Your task to perform on an android device: delete location history Image 0: 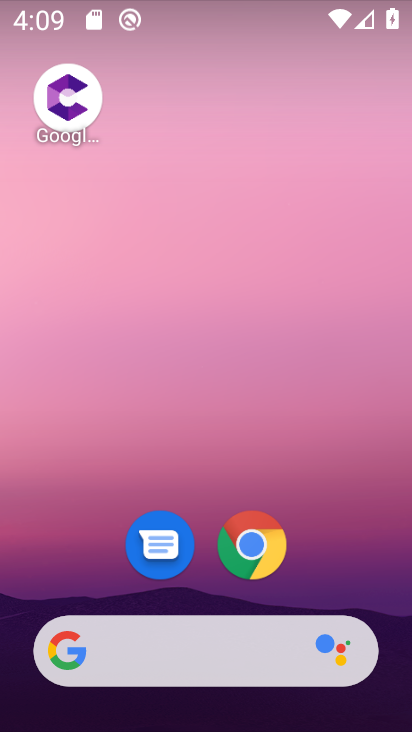
Step 0: drag from (369, 579) to (346, 201)
Your task to perform on an android device: delete location history Image 1: 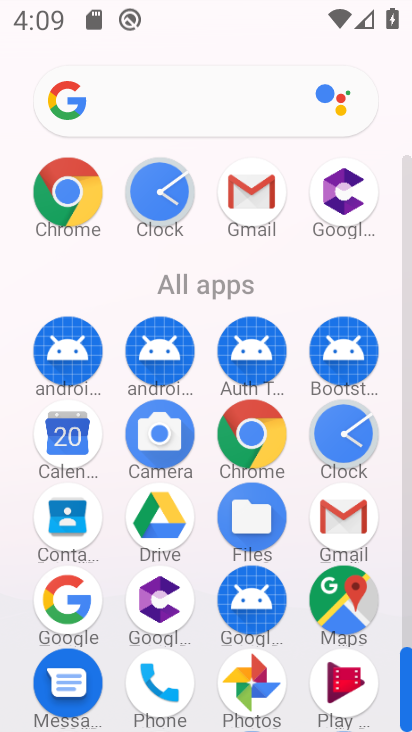
Step 1: click (268, 448)
Your task to perform on an android device: delete location history Image 2: 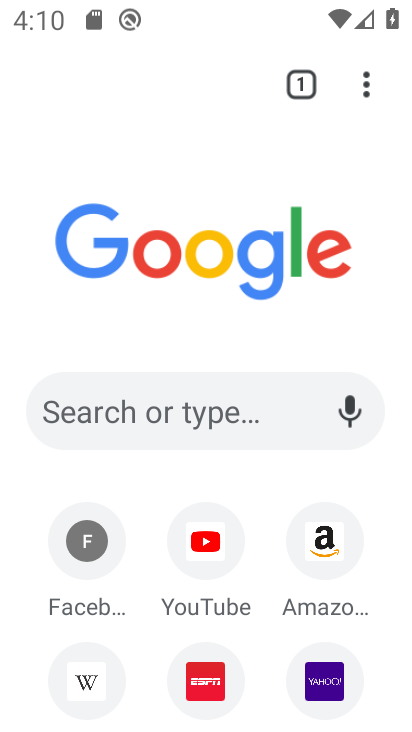
Step 2: click (366, 94)
Your task to perform on an android device: delete location history Image 3: 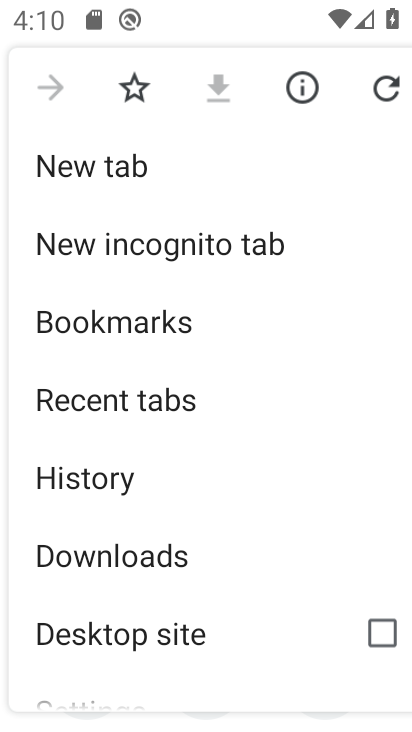
Step 3: drag from (278, 551) to (272, 473)
Your task to perform on an android device: delete location history Image 4: 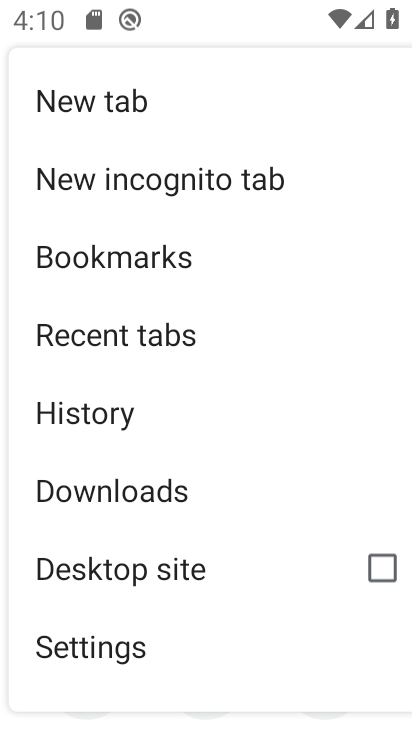
Step 4: drag from (299, 552) to (308, 451)
Your task to perform on an android device: delete location history Image 5: 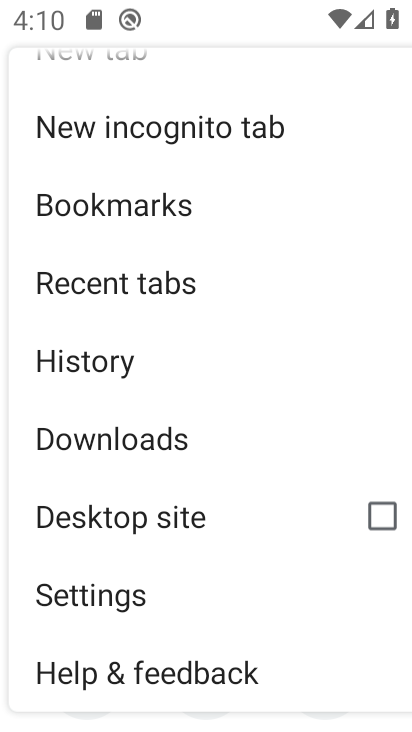
Step 5: press back button
Your task to perform on an android device: delete location history Image 6: 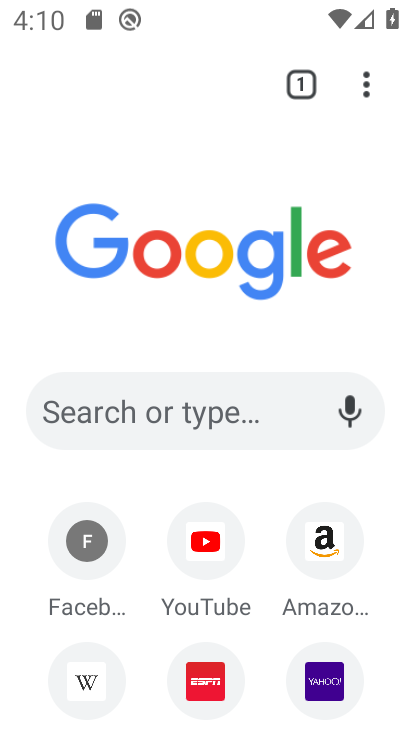
Step 6: press back button
Your task to perform on an android device: delete location history Image 7: 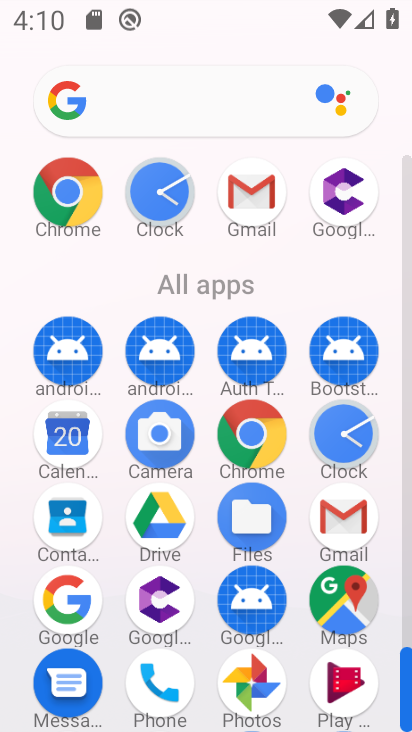
Step 7: click (340, 594)
Your task to perform on an android device: delete location history Image 8: 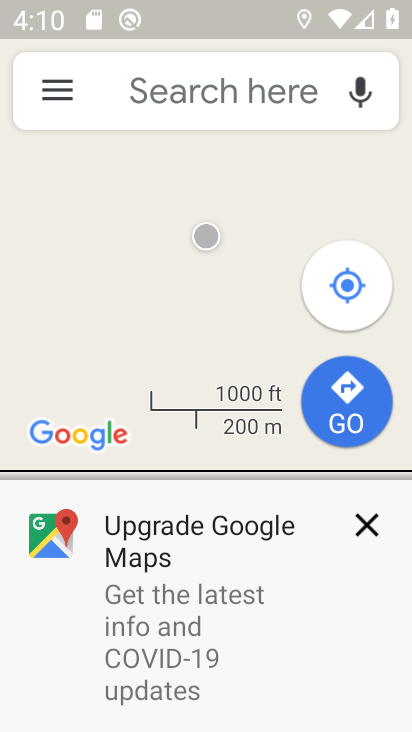
Step 8: click (87, 105)
Your task to perform on an android device: delete location history Image 9: 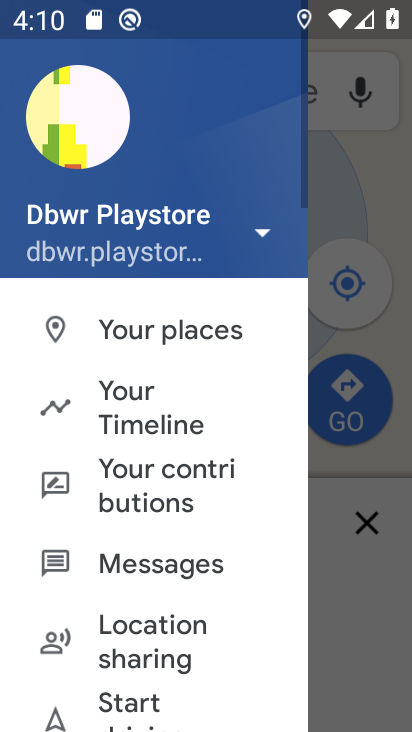
Step 9: click (187, 436)
Your task to perform on an android device: delete location history Image 10: 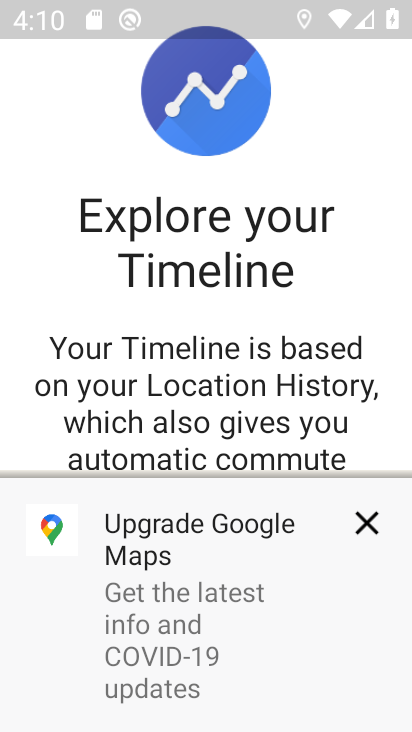
Step 10: click (356, 521)
Your task to perform on an android device: delete location history Image 11: 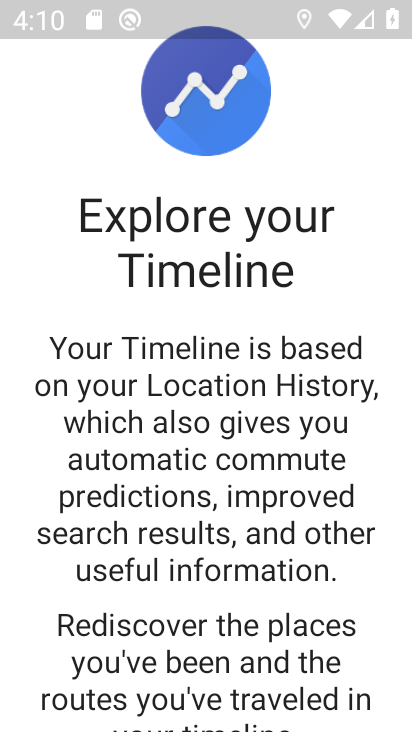
Step 11: drag from (312, 550) to (303, 228)
Your task to perform on an android device: delete location history Image 12: 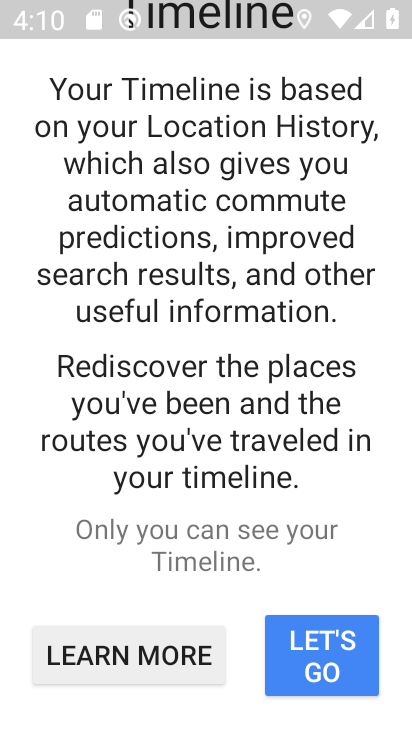
Step 12: drag from (247, 652) to (246, 375)
Your task to perform on an android device: delete location history Image 13: 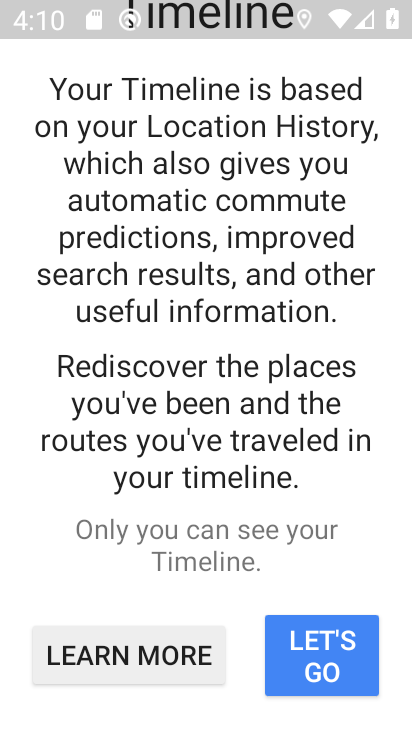
Step 13: click (321, 665)
Your task to perform on an android device: delete location history Image 14: 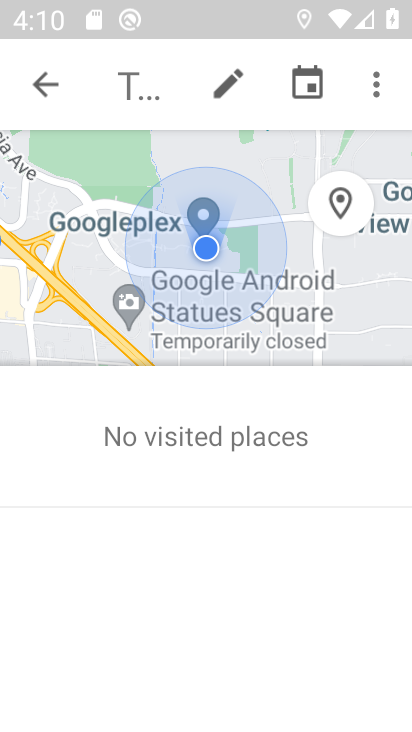
Step 14: click (376, 99)
Your task to perform on an android device: delete location history Image 15: 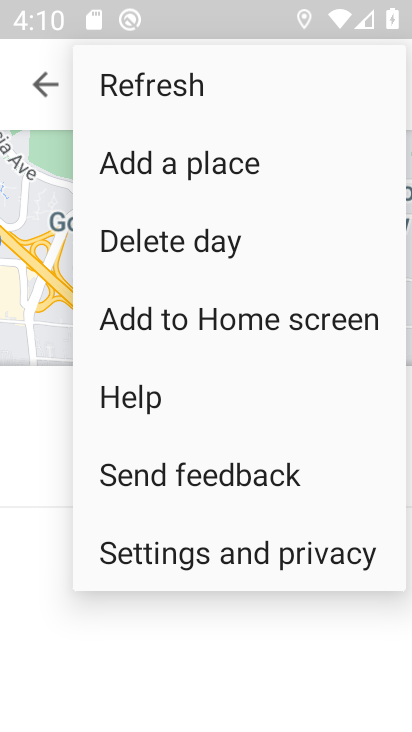
Step 15: click (307, 567)
Your task to perform on an android device: delete location history Image 16: 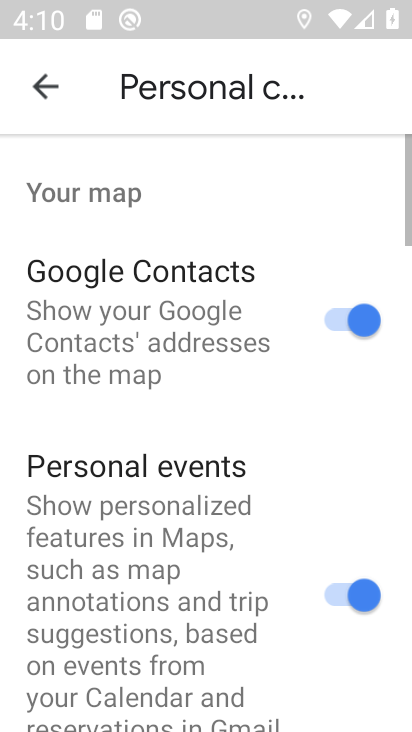
Step 16: drag from (293, 549) to (289, 434)
Your task to perform on an android device: delete location history Image 17: 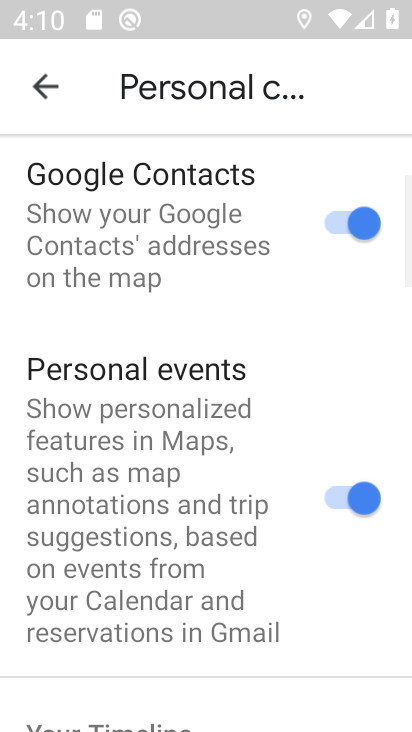
Step 17: drag from (289, 647) to (291, 430)
Your task to perform on an android device: delete location history Image 18: 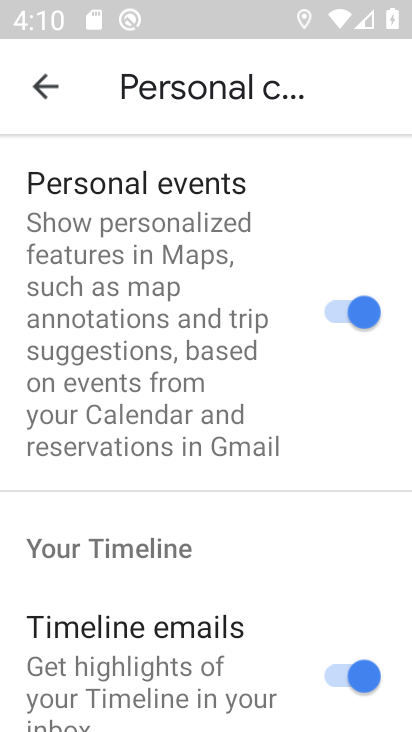
Step 18: drag from (295, 634) to (295, 473)
Your task to perform on an android device: delete location history Image 19: 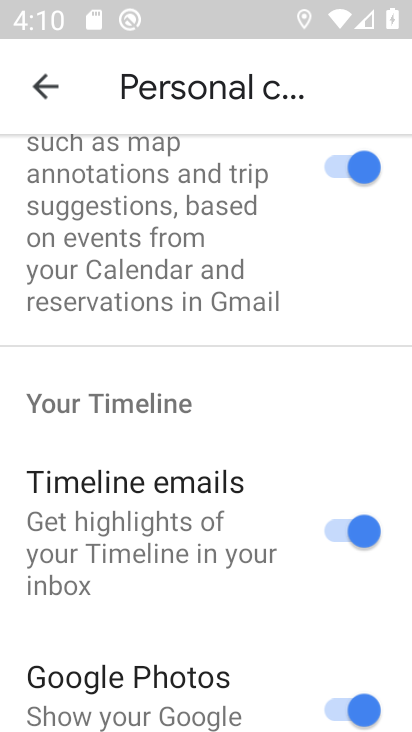
Step 19: drag from (291, 647) to (296, 500)
Your task to perform on an android device: delete location history Image 20: 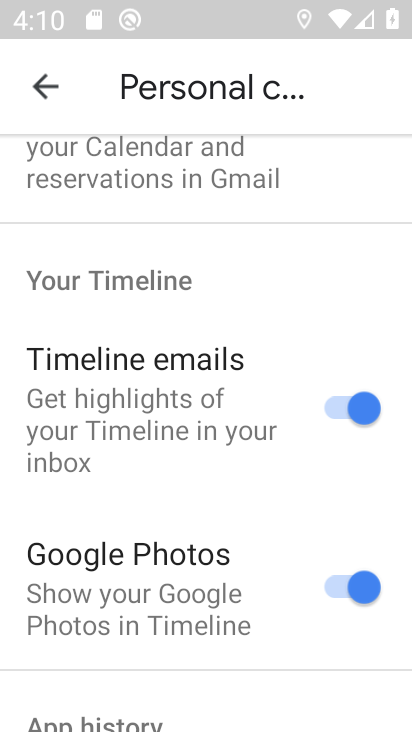
Step 20: drag from (289, 685) to (292, 505)
Your task to perform on an android device: delete location history Image 21: 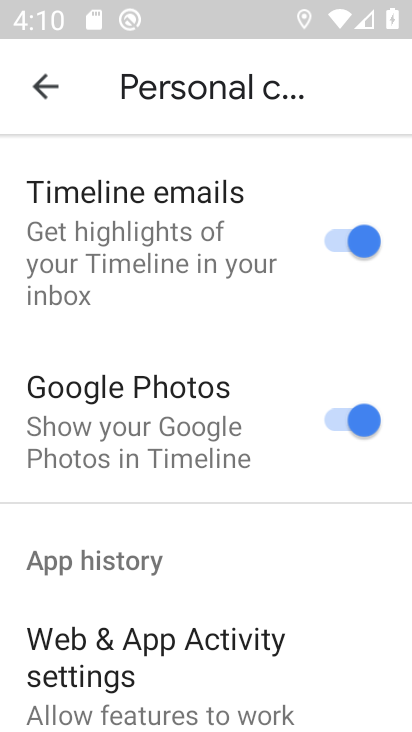
Step 21: drag from (289, 679) to (318, 527)
Your task to perform on an android device: delete location history Image 22: 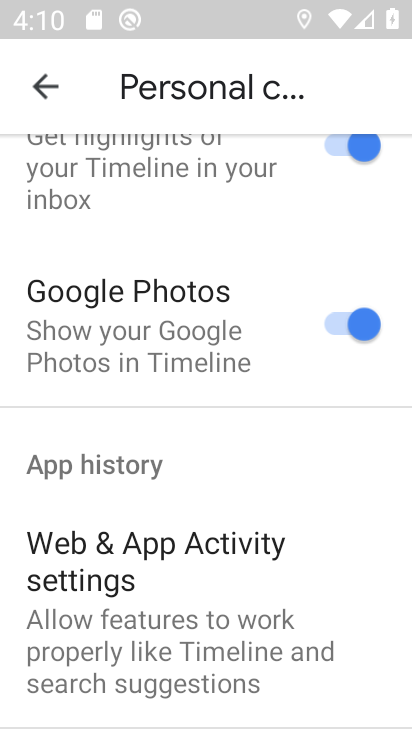
Step 22: drag from (335, 684) to (336, 513)
Your task to perform on an android device: delete location history Image 23: 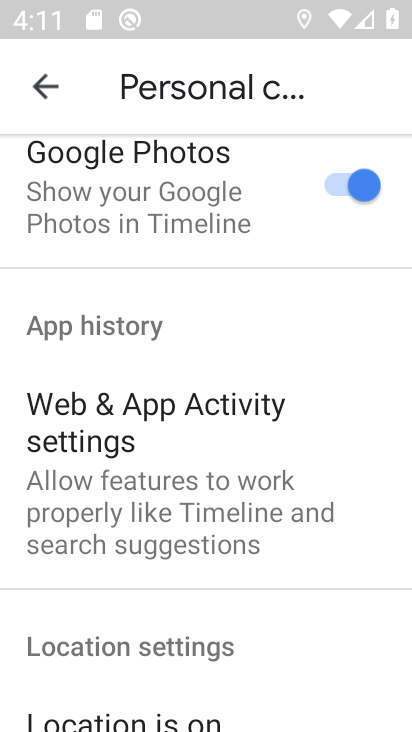
Step 23: drag from (314, 644) to (318, 451)
Your task to perform on an android device: delete location history Image 24: 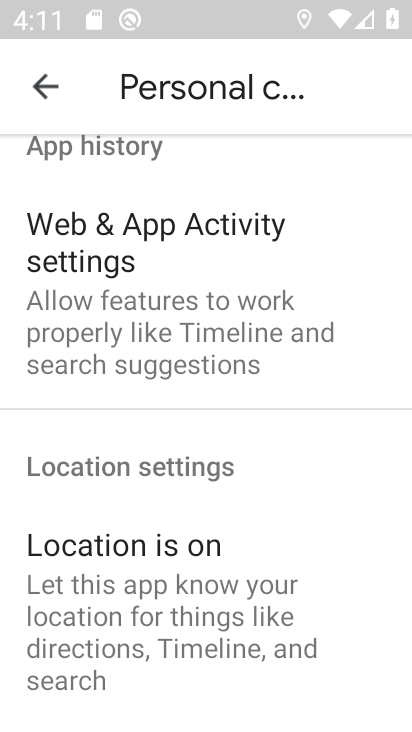
Step 24: drag from (335, 610) to (329, 419)
Your task to perform on an android device: delete location history Image 25: 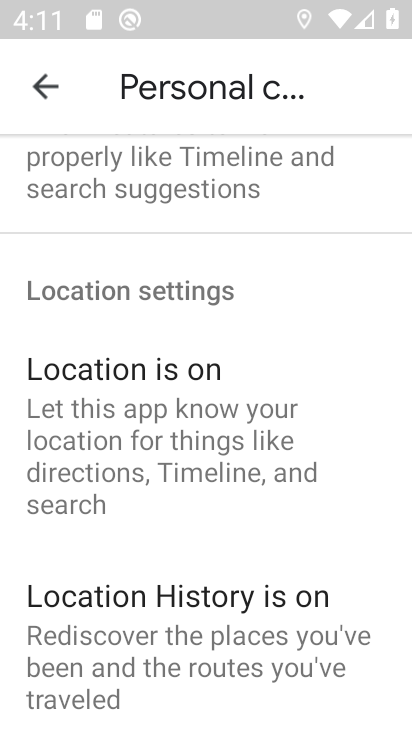
Step 25: drag from (294, 637) to (290, 334)
Your task to perform on an android device: delete location history Image 26: 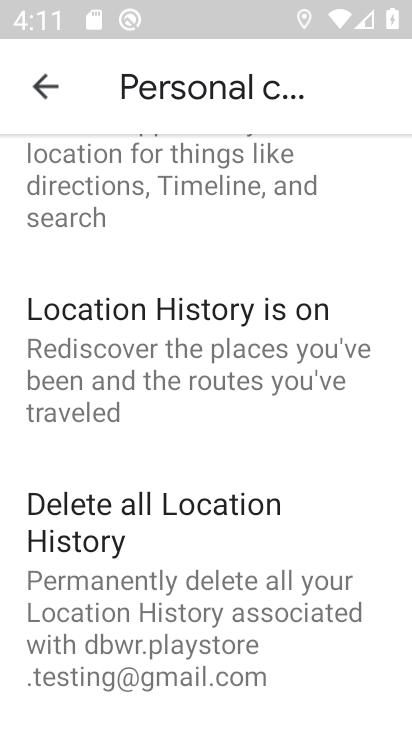
Step 26: click (236, 578)
Your task to perform on an android device: delete location history Image 27: 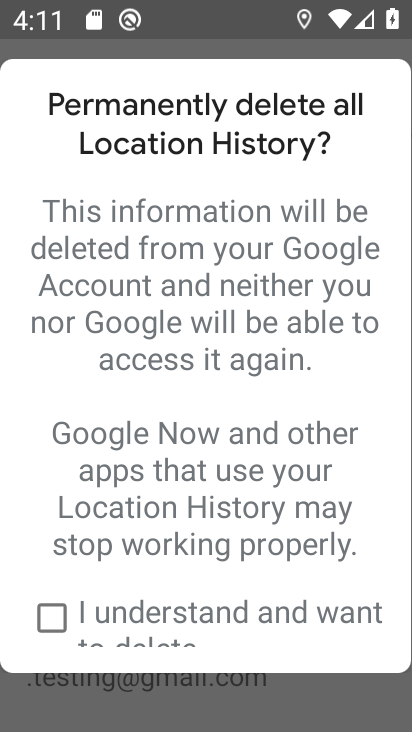
Step 27: click (98, 622)
Your task to perform on an android device: delete location history Image 28: 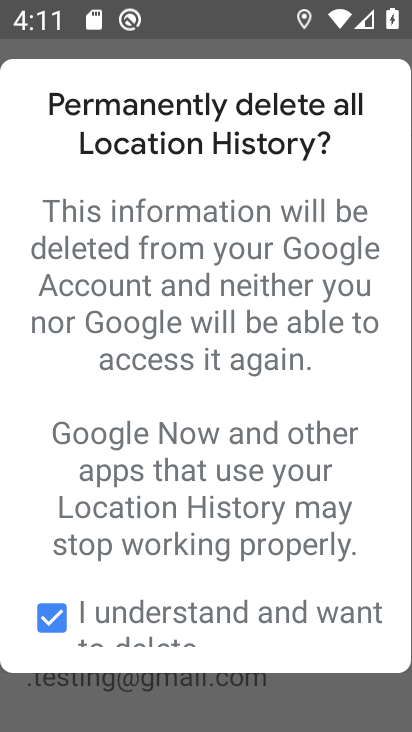
Step 28: task complete